Your task to perform on an android device: open chrome privacy settings Image 0: 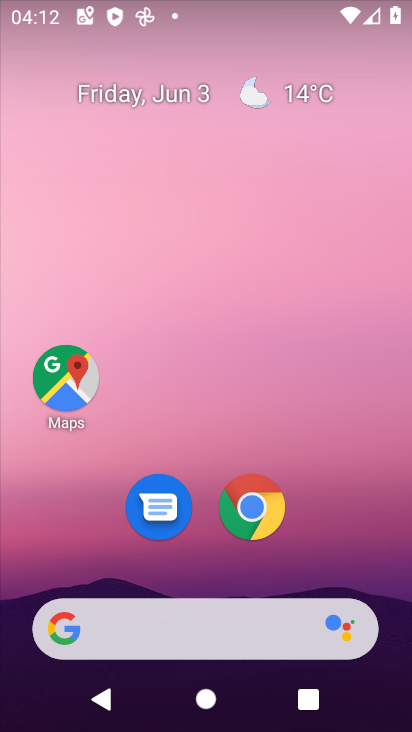
Step 0: press home button
Your task to perform on an android device: open chrome privacy settings Image 1: 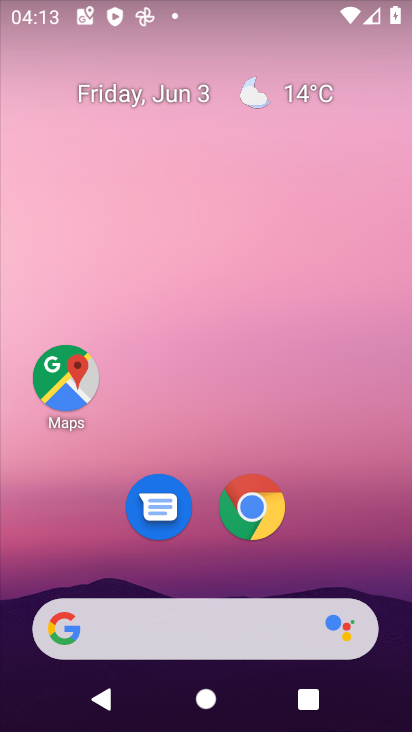
Step 1: drag from (223, 556) to (236, 87)
Your task to perform on an android device: open chrome privacy settings Image 2: 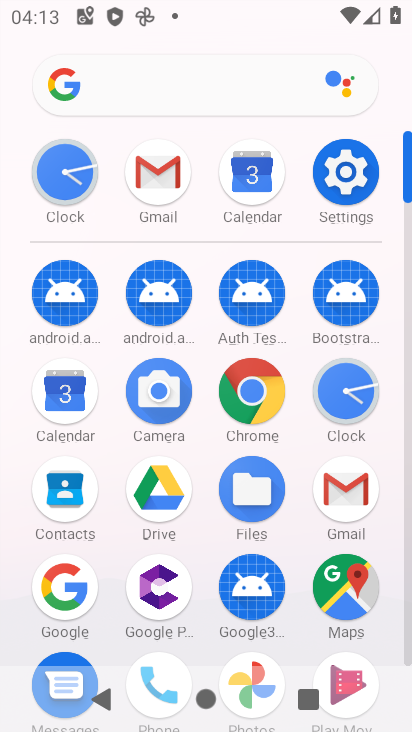
Step 2: click (246, 391)
Your task to perform on an android device: open chrome privacy settings Image 3: 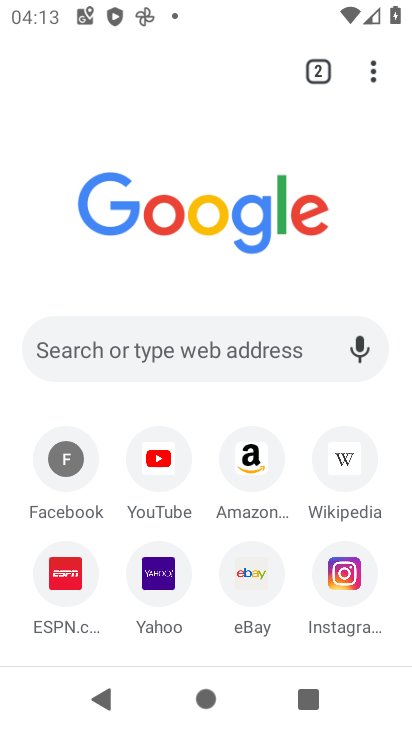
Step 3: drag from (379, 71) to (216, 506)
Your task to perform on an android device: open chrome privacy settings Image 4: 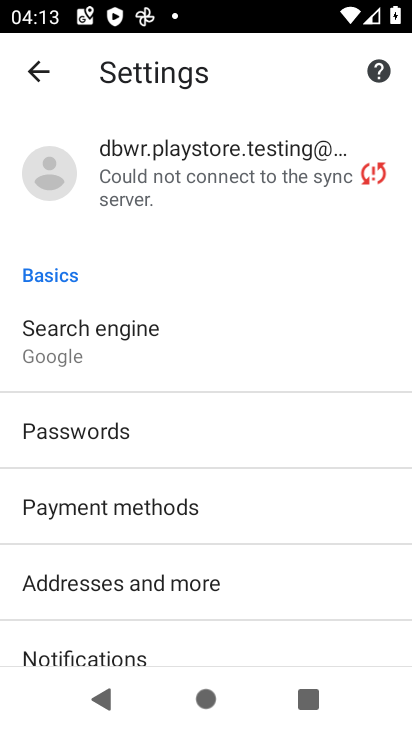
Step 4: drag from (299, 644) to (299, 201)
Your task to perform on an android device: open chrome privacy settings Image 5: 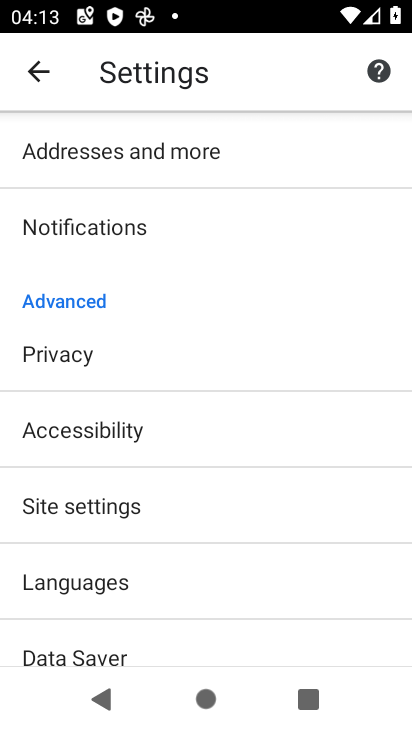
Step 5: click (62, 353)
Your task to perform on an android device: open chrome privacy settings Image 6: 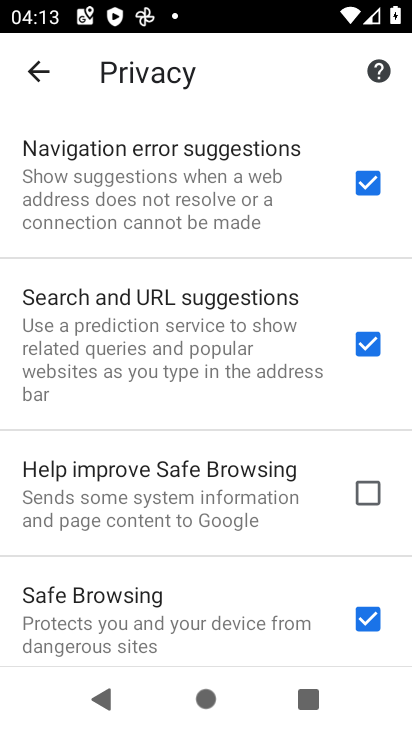
Step 6: task complete